Your task to perform on an android device: toggle notifications settings in the gmail app Image 0: 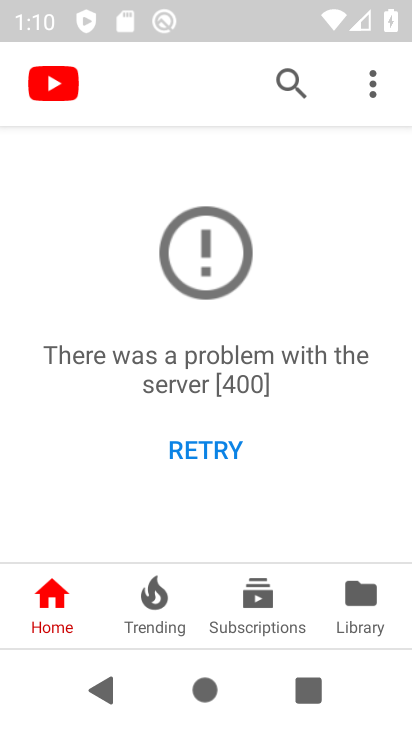
Step 0: click (387, 630)
Your task to perform on an android device: toggle notifications settings in the gmail app Image 1: 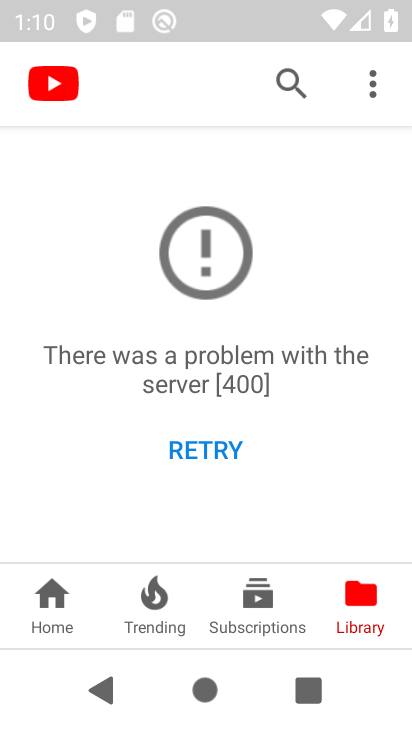
Step 1: press back button
Your task to perform on an android device: toggle notifications settings in the gmail app Image 2: 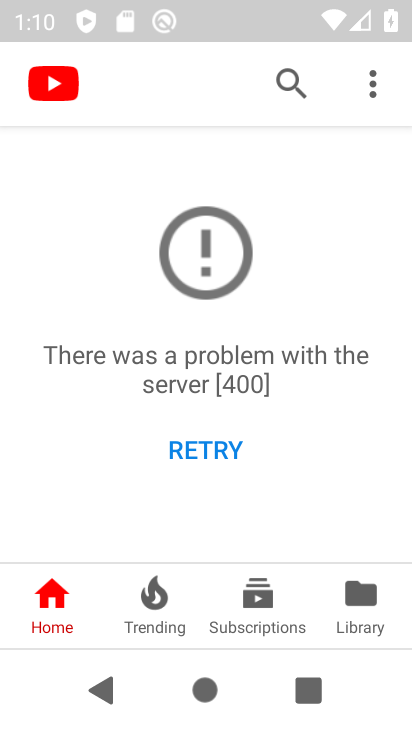
Step 2: press back button
Your task to perform on an android device: toggle notifications settings in the gmail app Image 3: 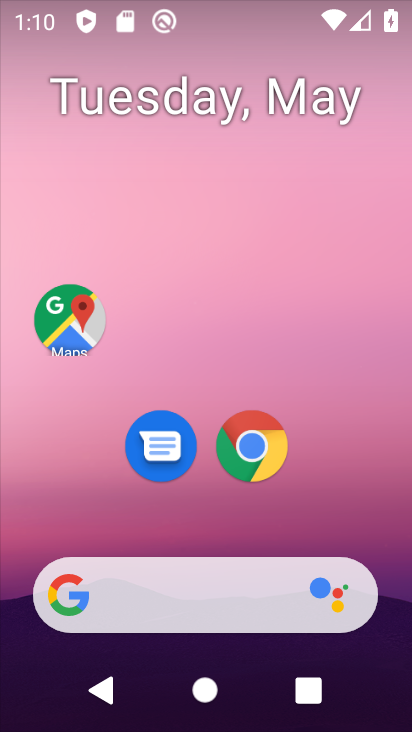
Step 3: drag from (270, 575) to (309, 45)
Your task to perform on an android device: toggle notifications settings in the gmail app Image 4: 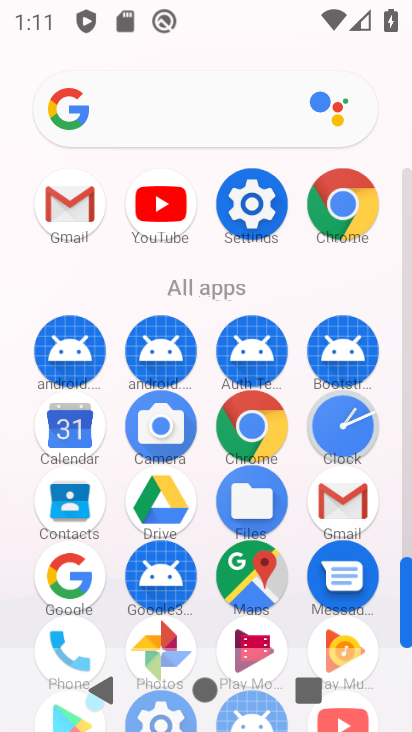
Step 4: click (335, 508)
Your task to perform on an android device: toggle notifications settings in the gmail app Image 5: 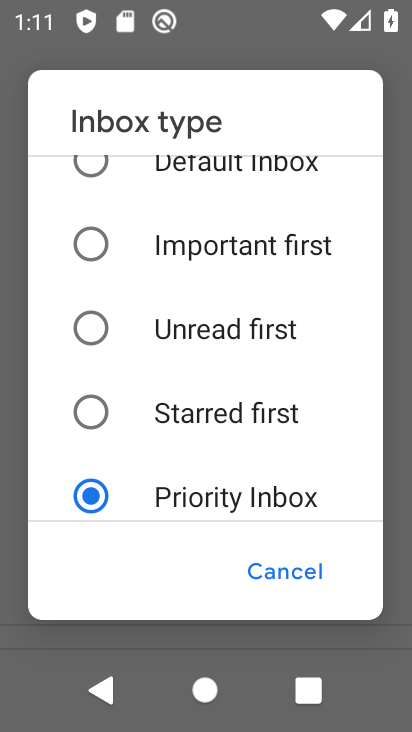
Step 5: click (270, 583)
Your task to perform on an android device: toggle notifications settings in the gmail app Image 6: 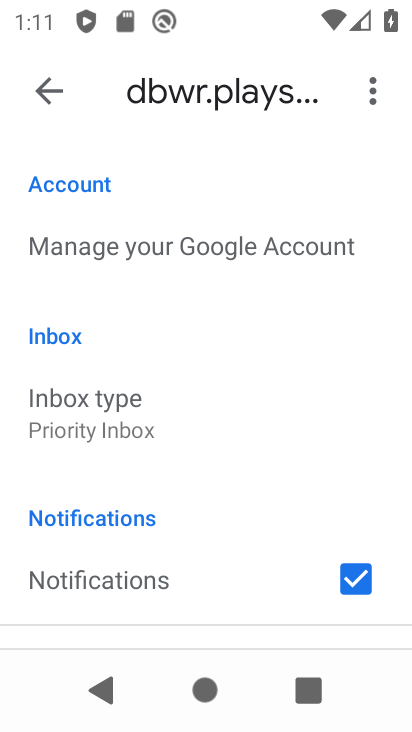
Step 6: click (41, 96)
Your task to perform on an android device: toggle notifications settings in the gmail app Image 7: 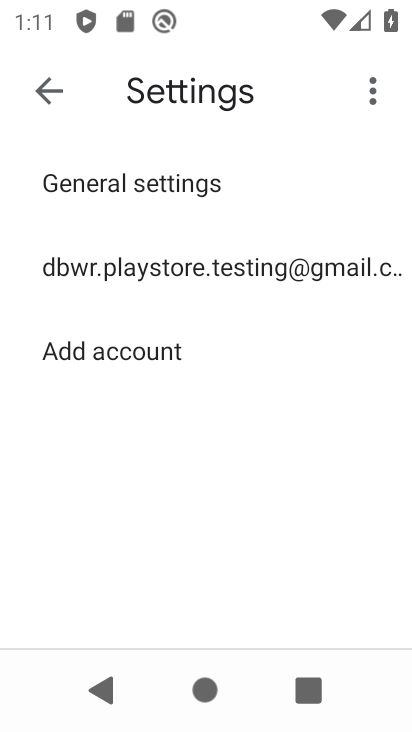
Step 7: click (132, 188)
Your task to perform on an android device: toggle notifications settings in the gmail app Image 8: 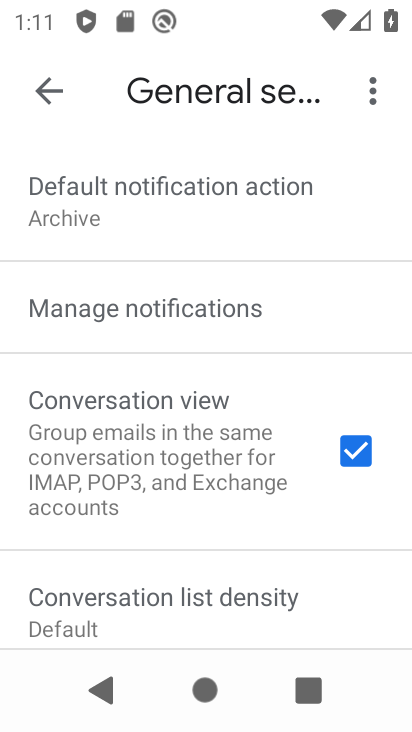
Step 8: click (159, 308)
Your task to perform on an android device: toggle notifications settings in the gmail app Image 9: 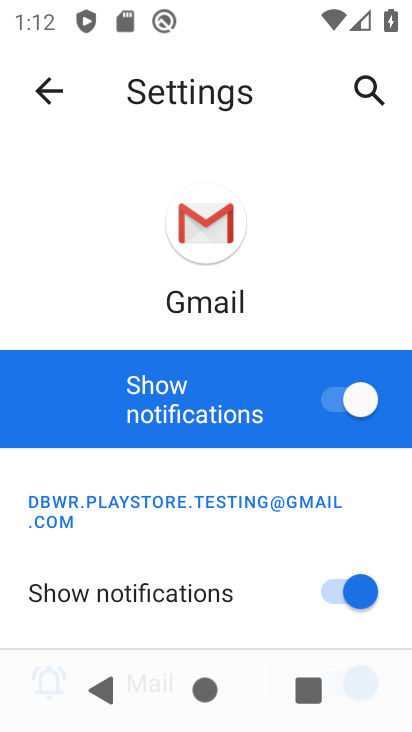
Step 9: task complete